Your task to perform on an android device: Go to sound settings Image 0: 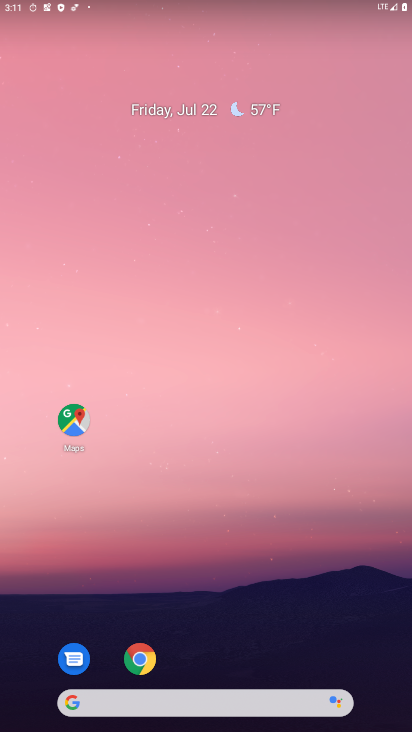
Step 0: drag from (245, 658) to (245, 87)
Your task to perform on an android device: Go to sound settings Image 1: 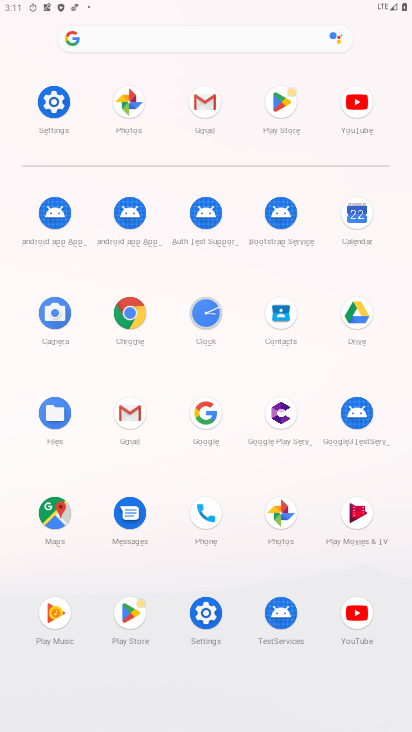
Step 1: click (204, 619)
Your task to perform on an android device: Go to sound settings Image 2: 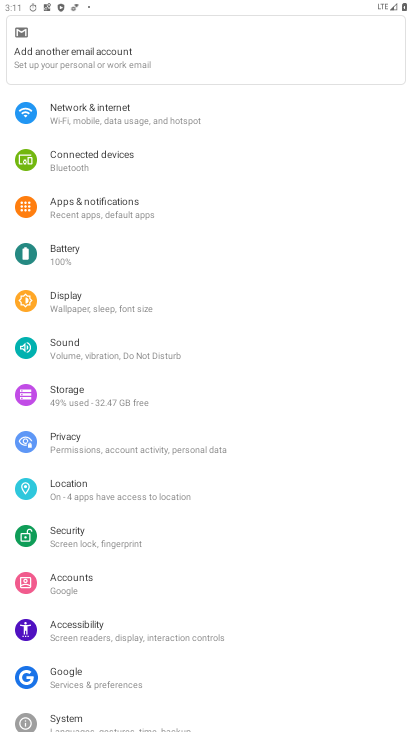
Step 2: click (78, 338)
Your task to perform on an android device: Go to sound settings Image 3: 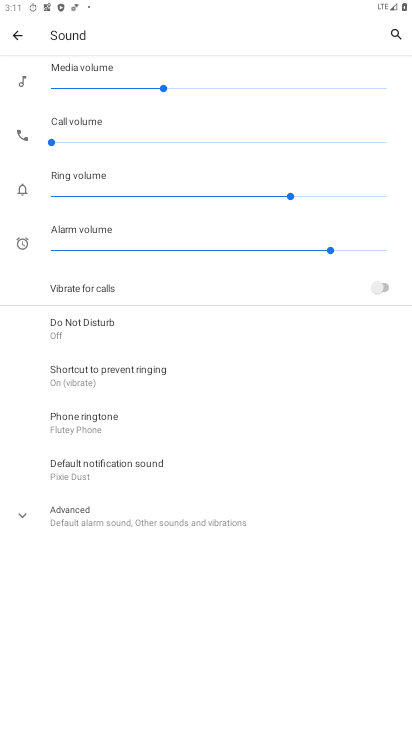
Step 3: task complete